Your task to perform on an android device: stop showing notifications on the lock screen Image 0: 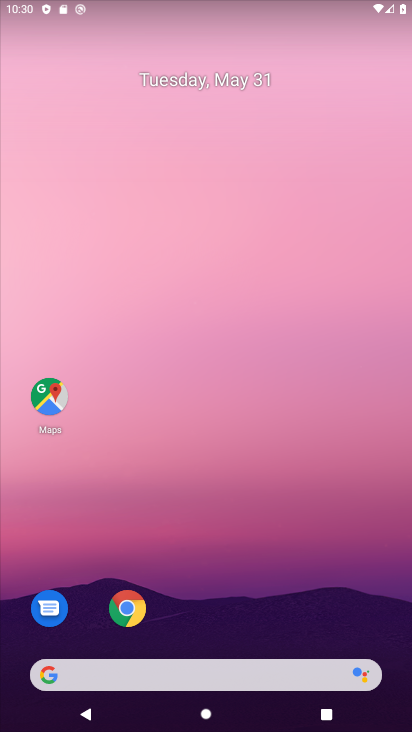
Step 0: drag from (299, 575) to (278, 101)
Your task to perform on an android device: stop showing notifications on the lock screen Image 1: 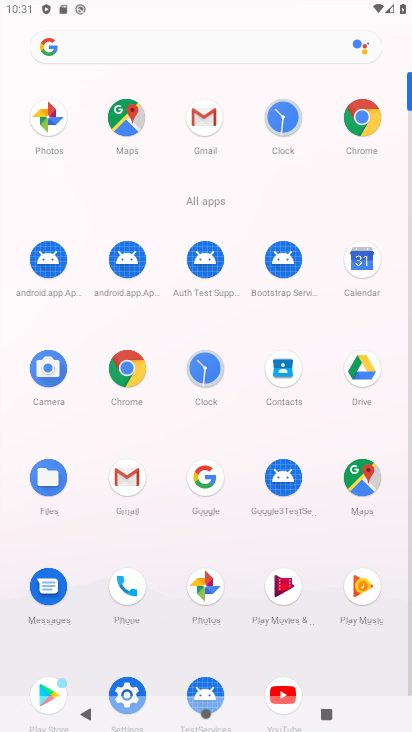
Step 1: click (141, 688)
Your task to perform on an android device: stop showing notifications on the lock screen Image 2: 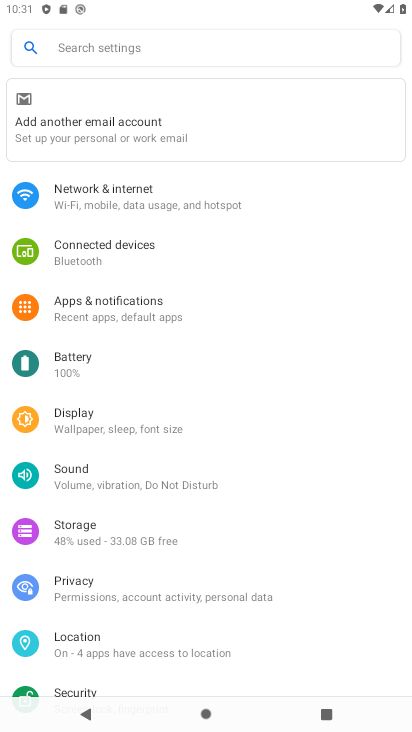
Step 2: drag from (289, 625) to (297, 373)
Your task to perform on an android device: stop showing notifications on the lock screen Image 3: 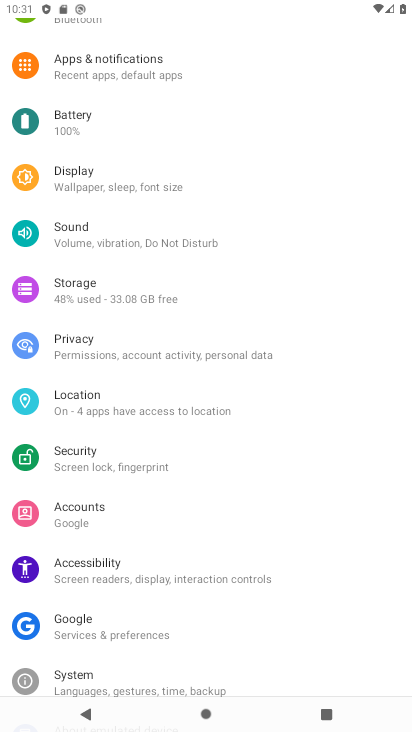
Step 3: drag from (180, 214) to (200, 445)
Your task to perform on an android device: stop showing notifications on the lock screen Image 4: 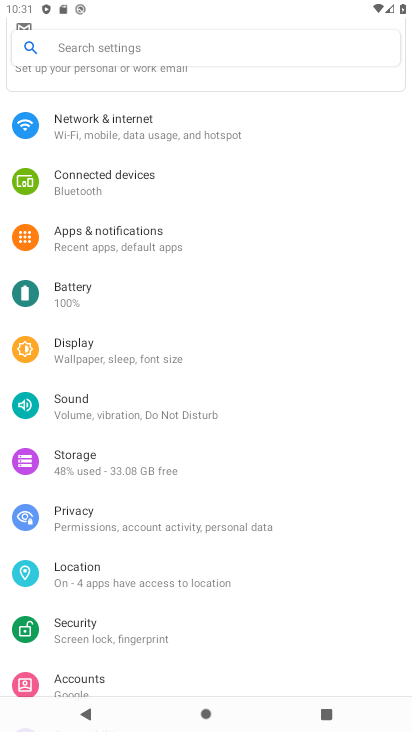
Step 4: click (152, 238)
Your task to perform on an android device: stop showing notifications on the lock screen Image 5: 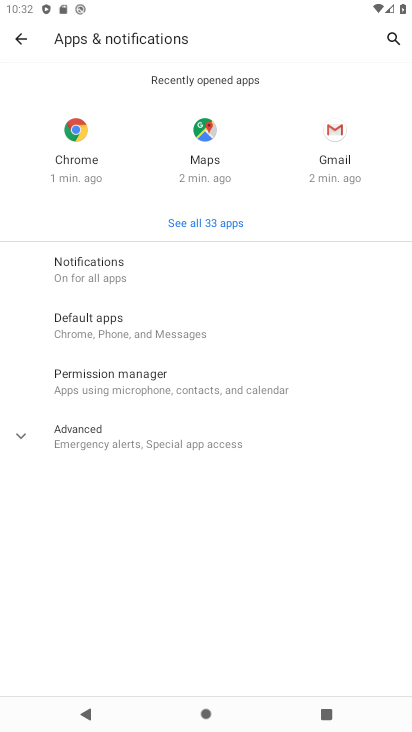
Step 5: click (183, 270)
Your task to perform on an android device: stop showing notifications on the lock screen Image 6: 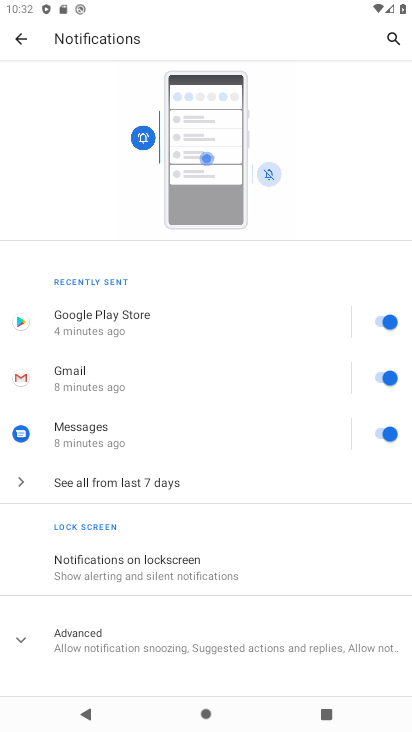
Step 6: click (191, 635)
Your task to perform on an android device: stop showing notifications on the lock screen Image 7: 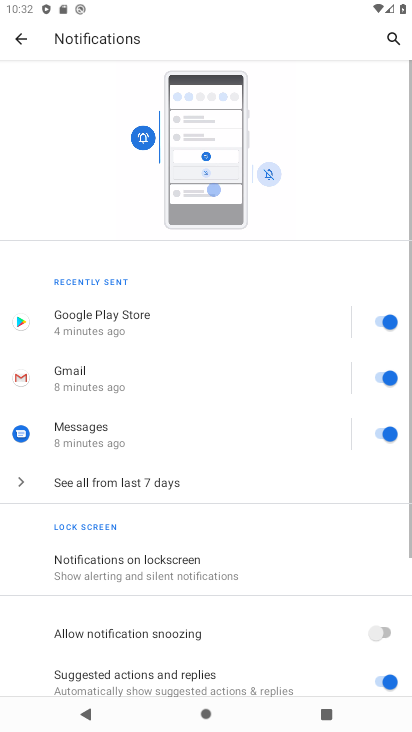
Step 7: click (176, 585)
Your task to perform on an android device: stop showing notifications on the lock screen Image 8: 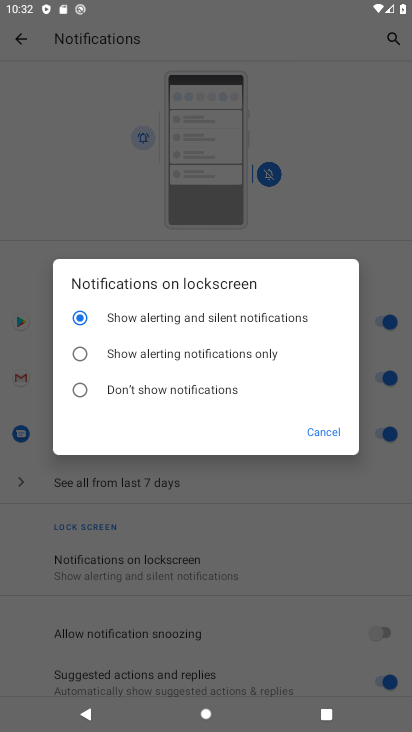
Step 8: click (117, 389)
Your task to perform on an android device: stop showing notifications on the lock screen Image 9: 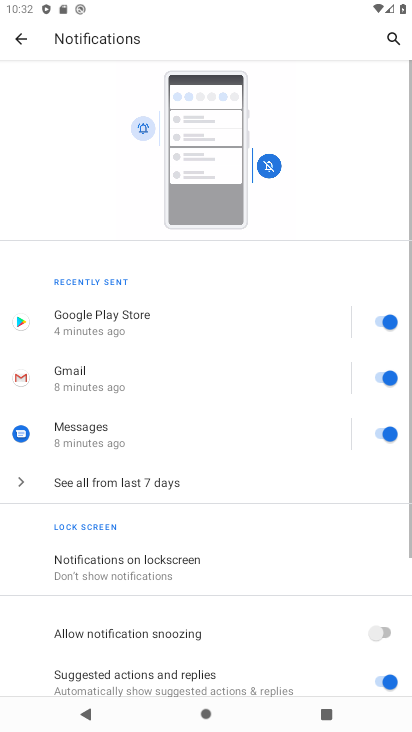
Step 9: task complete